Your task to perform on an android device: choose inbox layout in the gmail app Image 0: 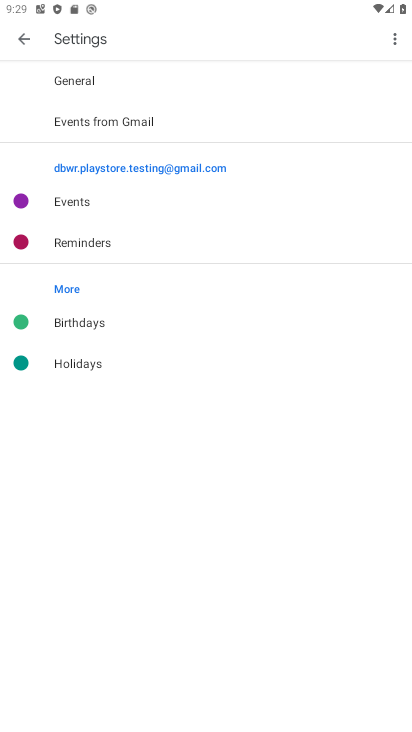
Step 0: press home button
Your task to perform on an android device: choose inbox layout in the gmail app Image 1: 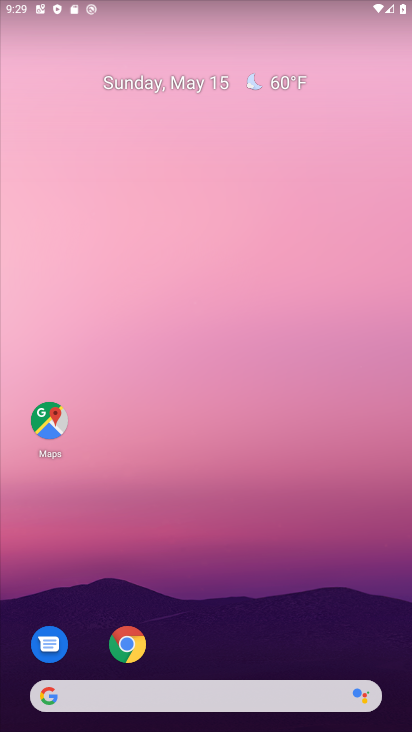
Step 1: drag from (179, 471) to (210, 255)
Your task to perform on an android device: choose inbox layout in the gmail app Image 2: 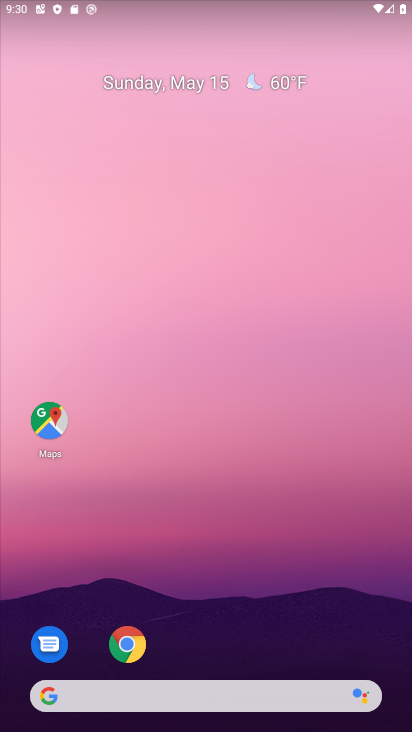
Step 2: drag from (177, 639) to (230, 141)
Your task to perform on an android device: choose inbox layout in the gmail app Image 3: 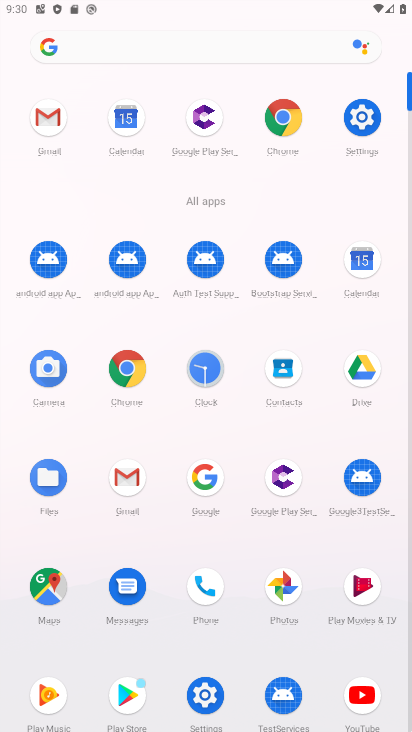
Step 3: click (53, 122)
Your task to perform on an android device: choose inbox layout in the gmail app Image 4: 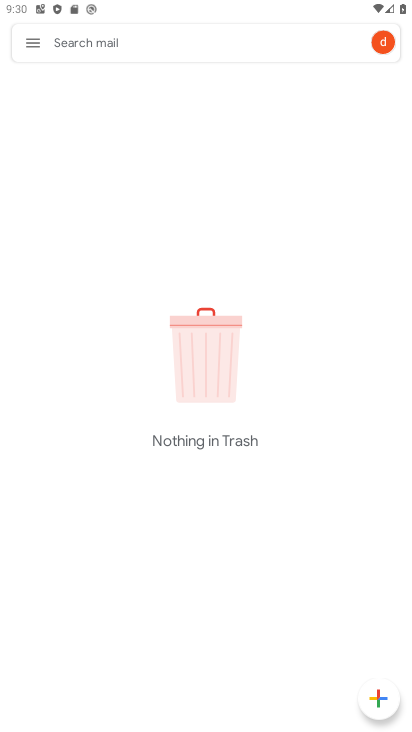
Step 4: click (33, 52)
Your task to perform on an android device: choose inbox layout in the gmail app Image 5: 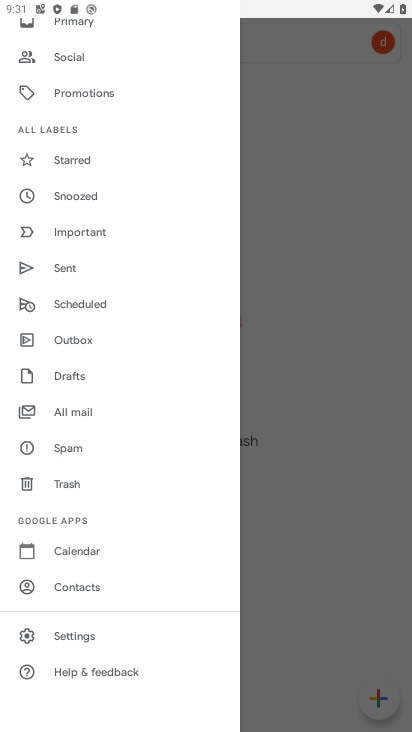
Step 5: click (79, 623)
Your task to perform on an android device: choose inbox layout in the gmail app Image 6: 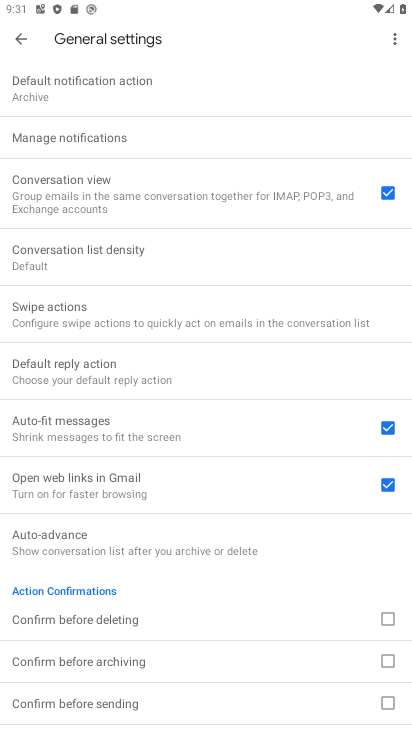
Step 6: click (8, 46)
Your task to perform on an android device: choose inbox layout in the gmail app Image 7: 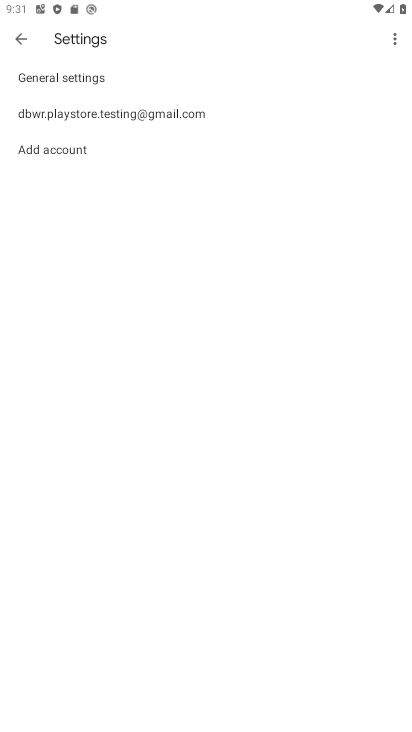
Step 7: click (57, 109)
Your task to perform on an android device: choose inbox layout in the gmail app Image 8: 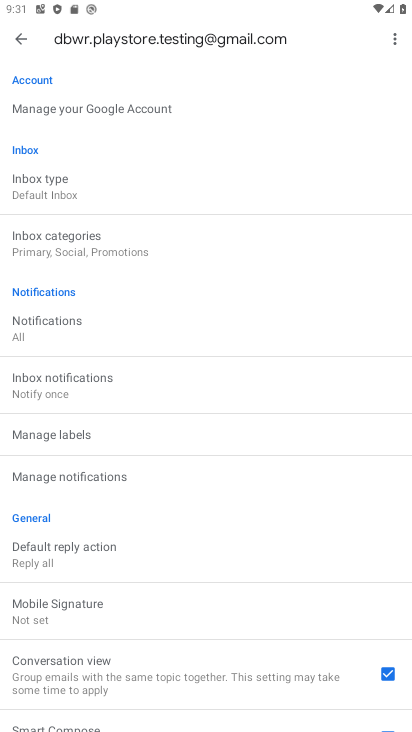
Step 8: click (61, 187)
Your task to perform on an android device: choose inbox layout in the gmail app Image 9: 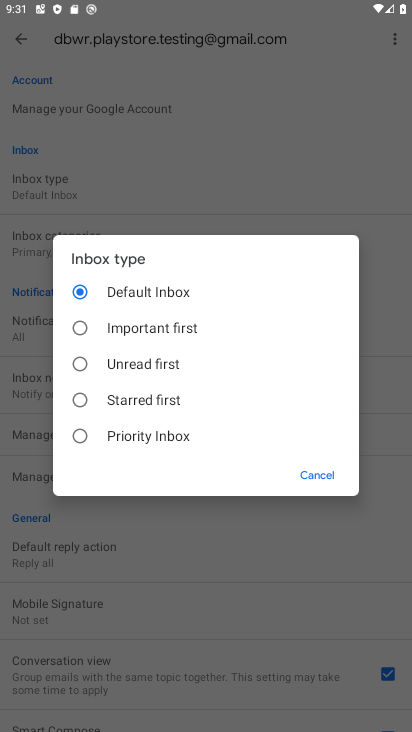
Step 9: click (129, 429)
Your task to perform on an android device: choose inbox layout in the gmail app Image 10: 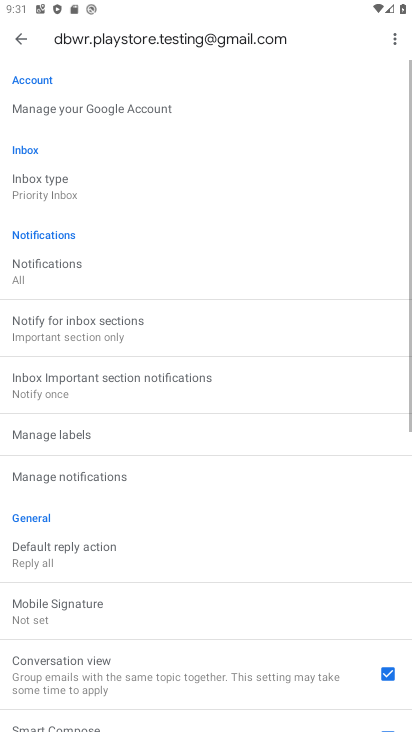
Step 10: task complete